Your task to perform on an android device: toggle airplane mode Image 0: 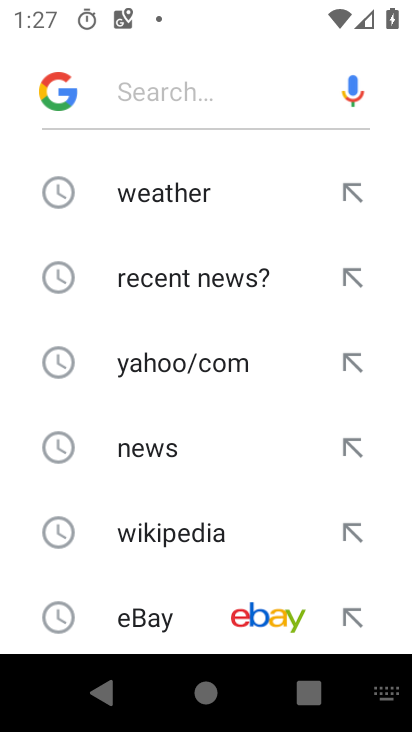
Step 0: press home button
Your task to perform on an android device: toggle airplane mode Image 1: 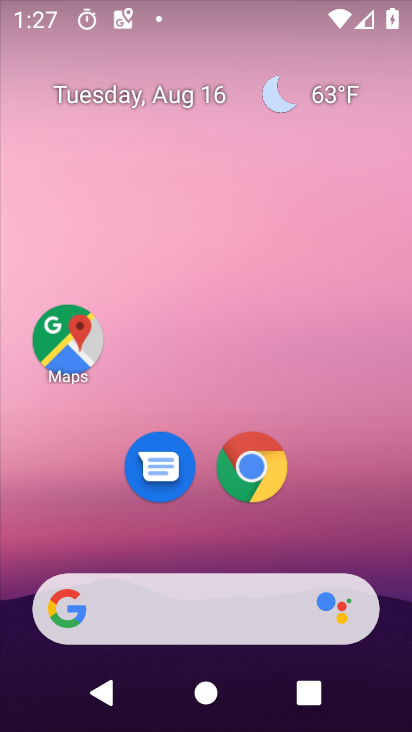
Step 1: drag from (351, 546) to (361, 158)
Your task to perform on an android device: toggle airplane mode Image 2: 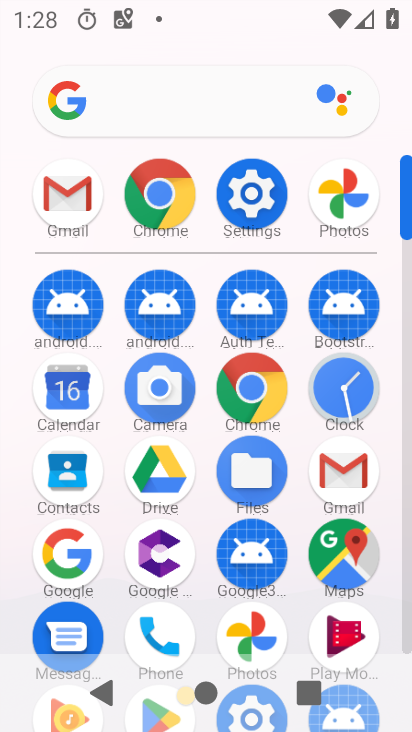
Step 2: click (255, 195)
Your task to perform on an android device: toggle airplane mode Image 3: 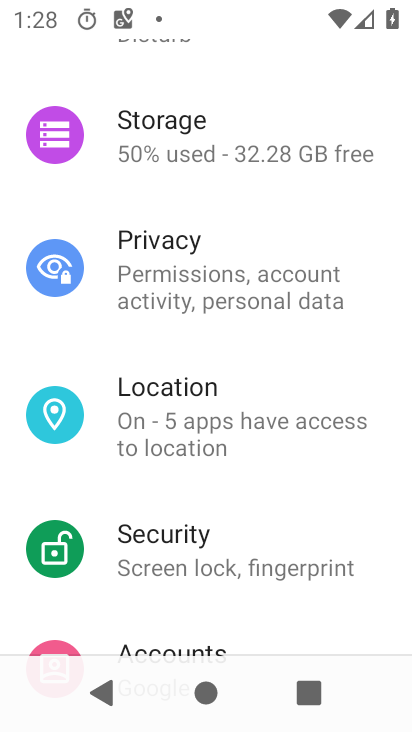
Step 3: drag from (369, 208) to (383, 356)
Your task to perform on an android device: toggle airplane mode Image 4: 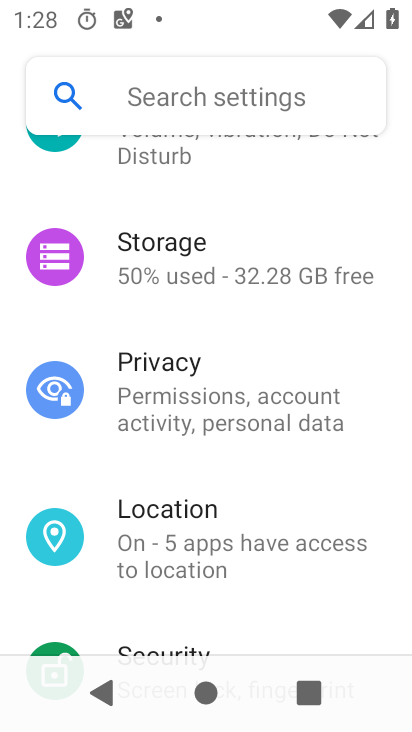
Step 4: drag from (387, 230) to (381, 403)
Your task to perform on an android device: toggle airplane mode Image 5: 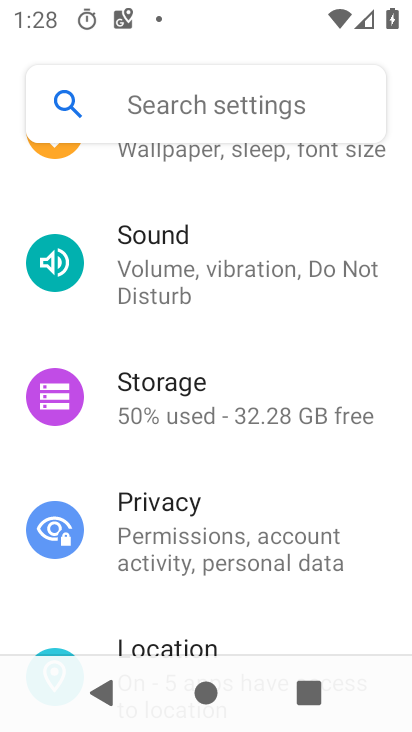
Step 5: drag from (389, 198) to (378, 403)
Your task to perform on an android device: toggle airplane mode Image 6: 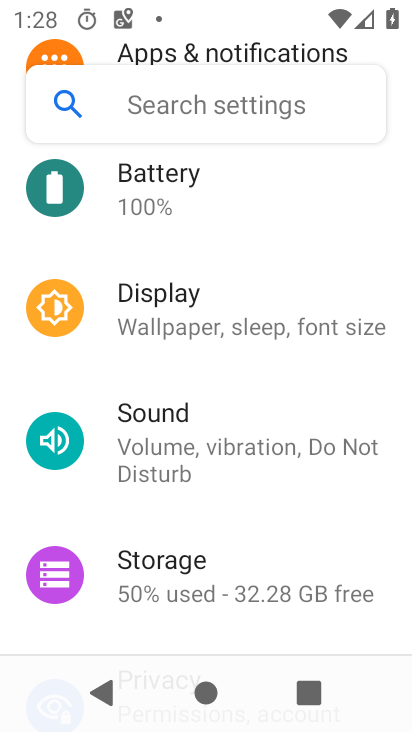
Step 6: drag from (357, 190) to (357, 392)
Your task to perform on an android device: toggle airplane mode Image 7: 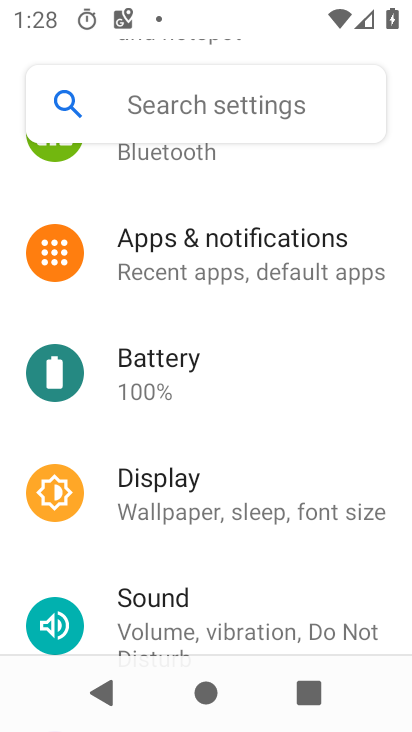
Step 7: drag from (376, 195) to (377, 396)
Your task to perform on an android device: toggle airplane mode Image 8: 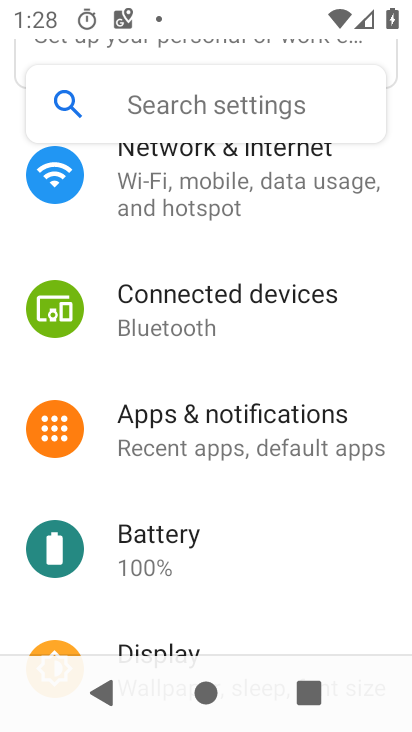
Step 8: drag from (368, 219) to (372, 457)
Your task to perform on an android device: toggle airplane mode Image 9: 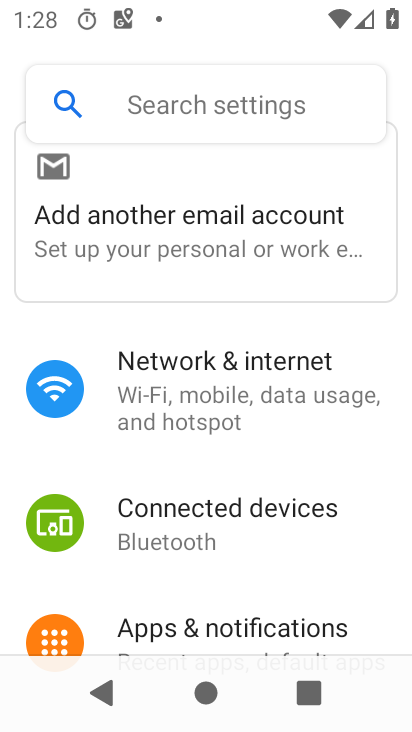
Step 9: click (240, 399)
Your task to perform on an android device: toggle airplane mode Image 10: 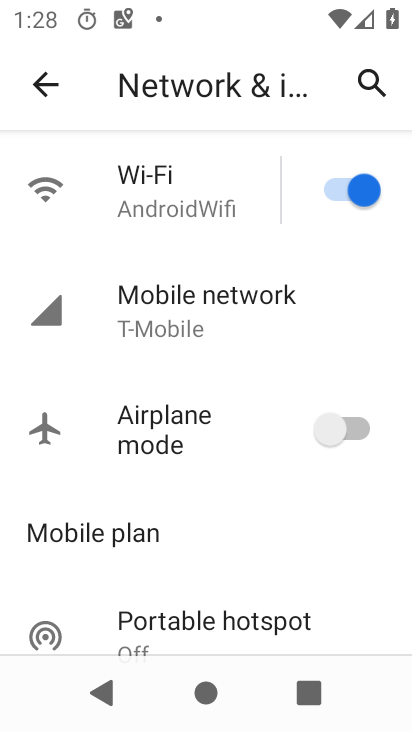
Step 10: drag from (264, 535) to (265, 398)
Your task to perform on an android device: toggle airplane mode Image 11: 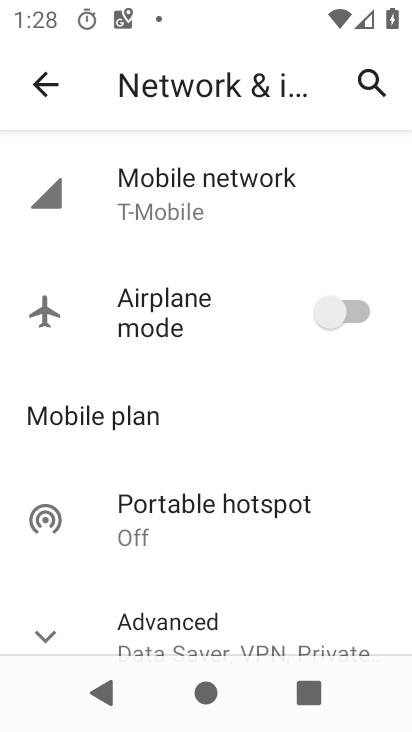
Step 11: click (331, 317)
Your task to perform on an android device: toggle airplane mode Image 12: 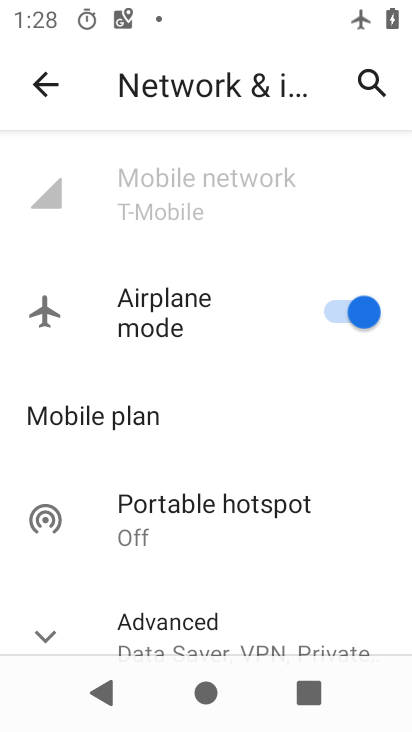
Step 12: task complete